Your task to perform on an android device: delete browsing data in the chrome app Image 0: 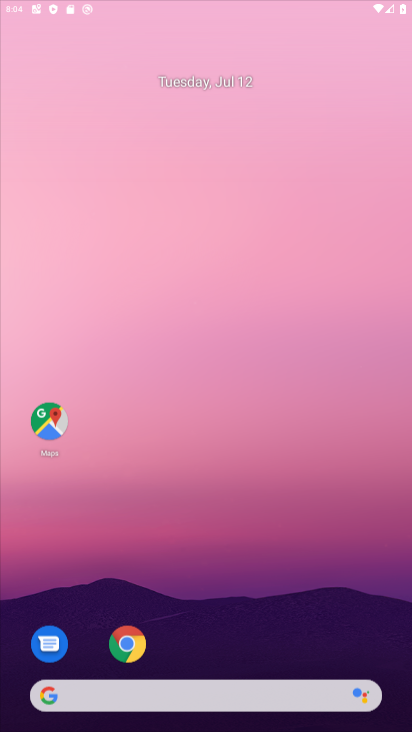
Step 0: click (257, 134)
Your task to perform on an android device: delete browsing data in the chrome app Image 1: 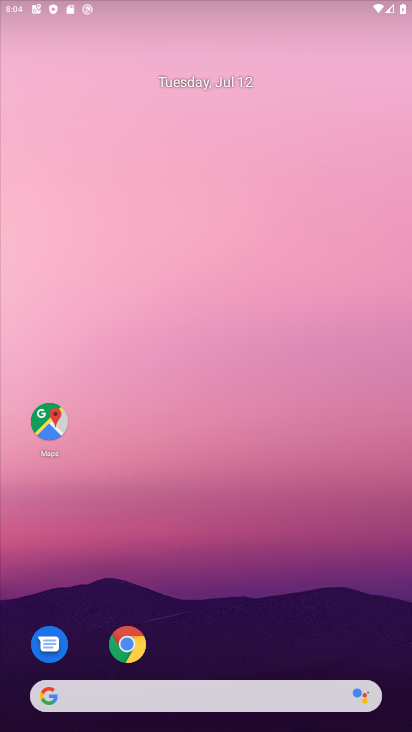
Step 1: drag from (219, 590) to (265, 263)
Your task to perform on an android device: delete browsing data in the chrome app Image 2: 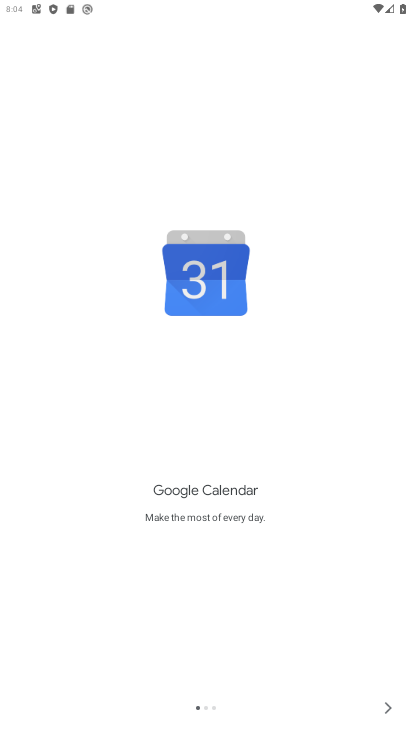
Step 2: press home button
Your task to perform on an android device: delete browsing data in the chrome app Image 3: 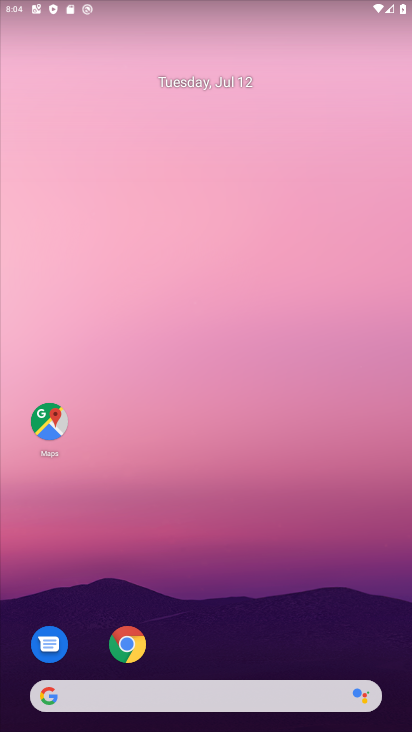
Step 3: drag from (222, 554) to (327, 69)
Your task to perform on an android device: delete browsing data in the chrome app Image 4: 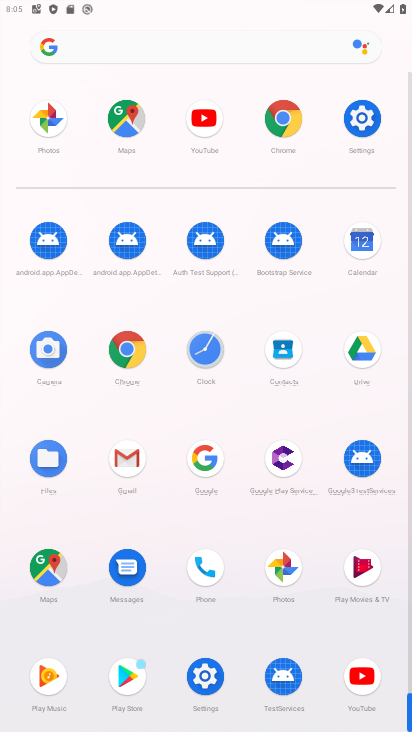
Step 4: click (133, 353)
Your task to perform on an android device: delete browsing data in the chrome app Image 5: 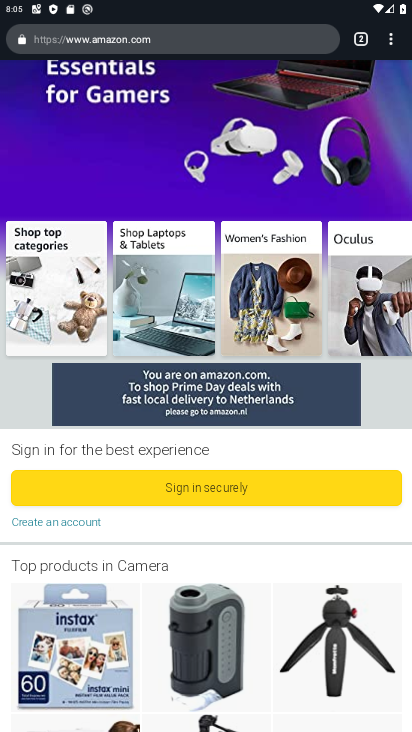
Step 5: drag from (116, 168) to (241, 631)
Your task to perform on an android device: delete browsing data in the chrome app Image 6: 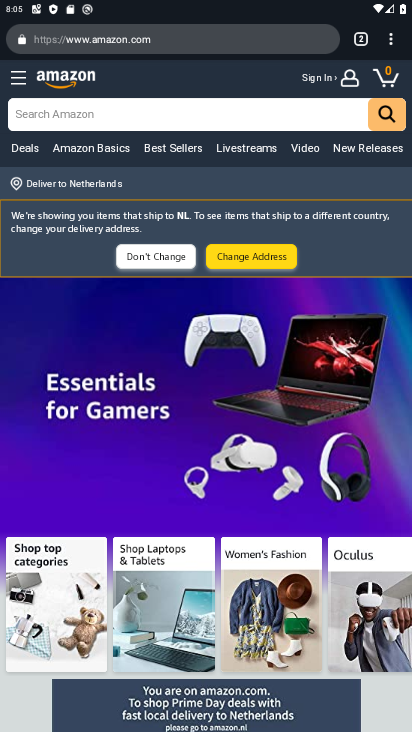
Step 6: drag from (214, 161) to (348, 501)
Your task to perform on an android device: delete browsing data in the chrome app Image 7: 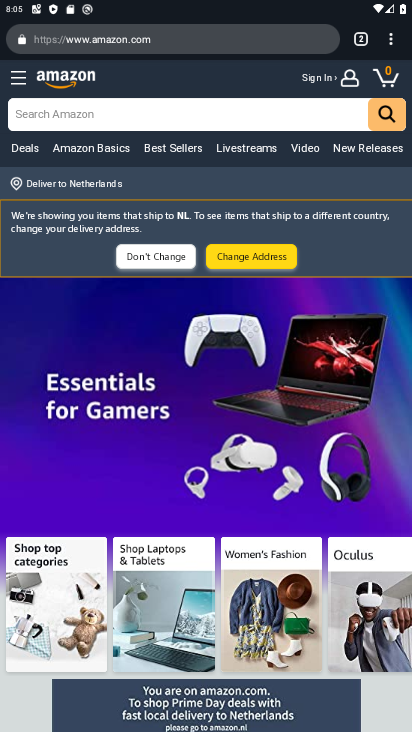
Step 7: drag from (203, 556) to (240, 0)
Your task to perform on an android device: delete browsing data in the chrome app Image 8: 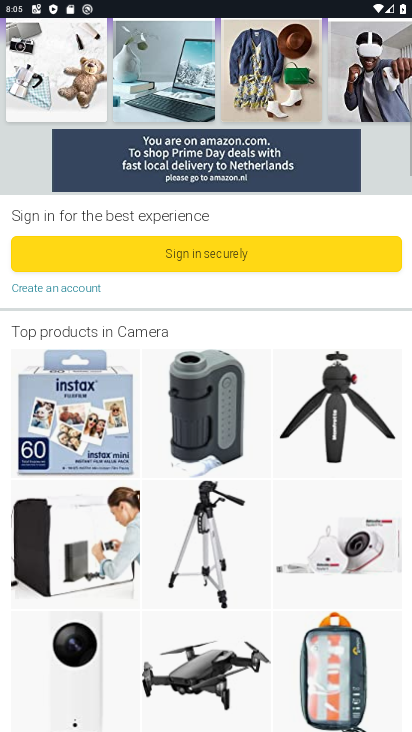
Step 8: drag from (118, 168) to (218, 718)
Your task to perform on an android device: delete browsing data in the chrome app Image 9: 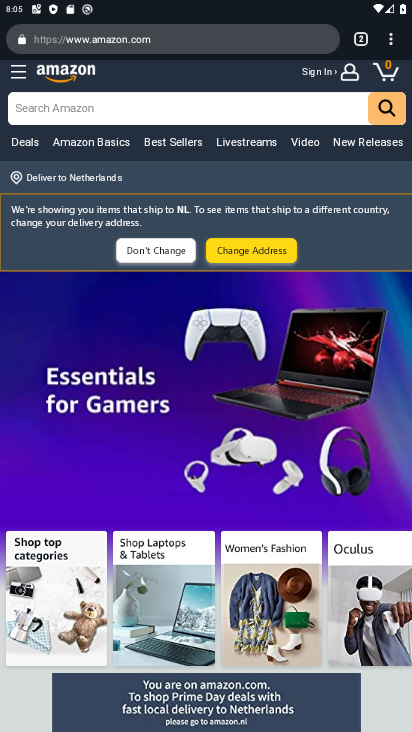
Step 9: drag from (203, 190) to (234, 535)
Your task to perform on an android device: delete browsing data in the chrome app Image 10: 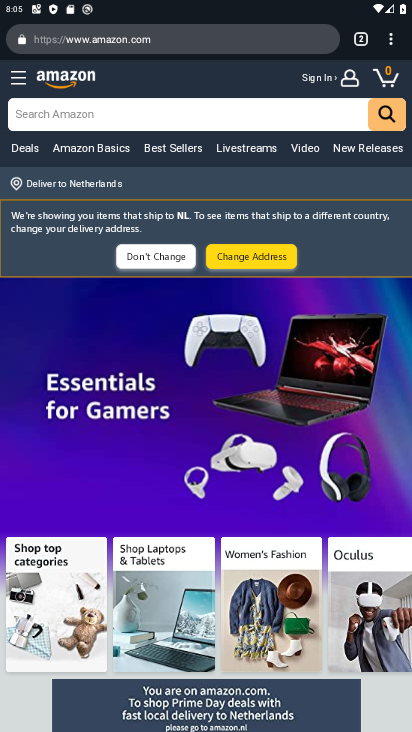
Step 10: click (396, 40)
Your task to perform on an android device: delete browsing data in the chrome app Image 11: 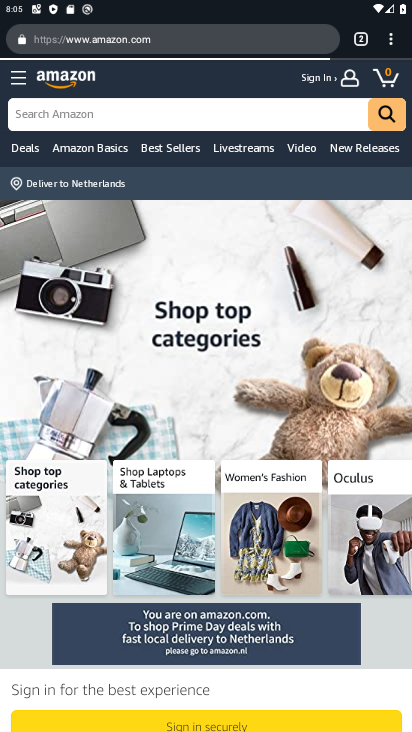
Step 11: click (389, 40)
Your task to perform on an android device: delete browsing data in the chrome app Image 12: 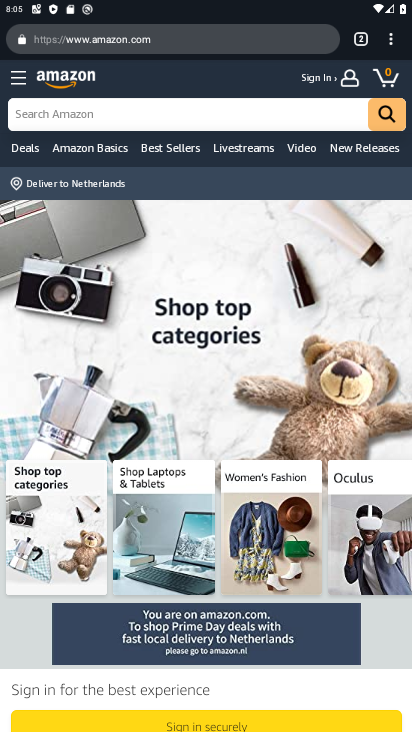
Step 12: click (392, 41)
Your task to perform on an android device: delete browsing data in the chrome app Image 13: 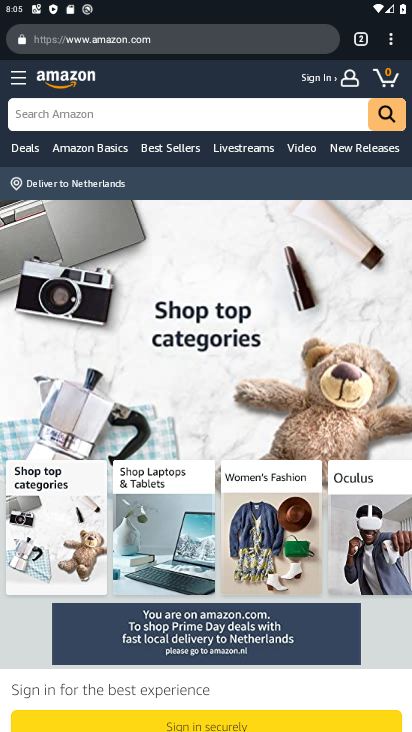
Step 13: drag from (393, 40) to (260, 268)
Your task to perform on an android device: delete browsing data in the chrome app Image 14: 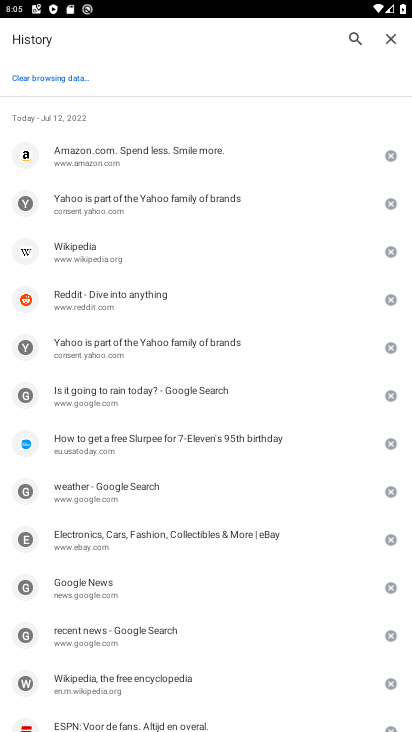
Step 14: click (58, 75)
Your task to perform on an android device: delete browsing data in the chrome app Image 15: 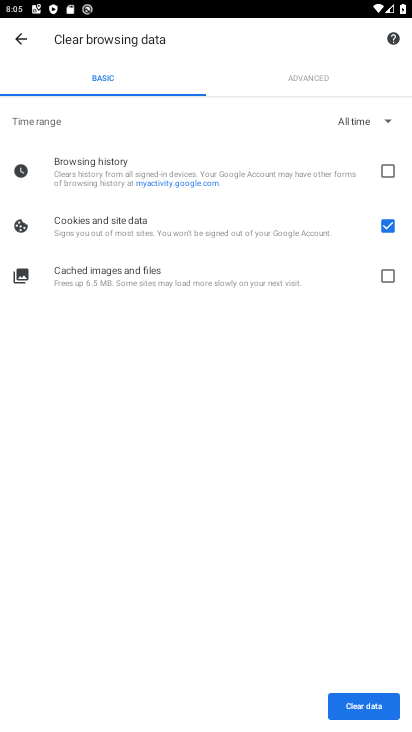
Step 15: click (349, 121)
Your task to perform on an android device: delete browsing data in the chrome app Image 16: 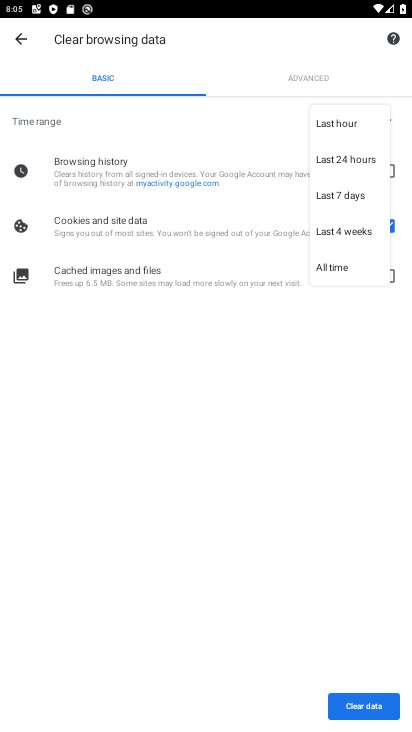
Step 16: click (172, 127)
Your task to perform on an android device: delete browsing data in the chrome app Image 17: 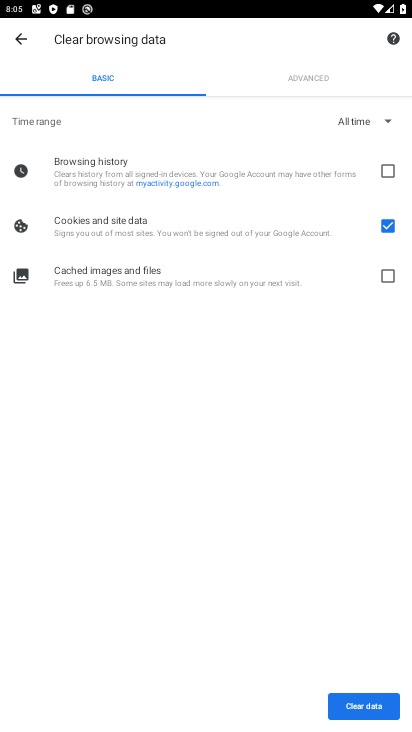
Step 17: click (356, 706)
Your task to perform on an android device: delete browsing data in the chrome app Image 18: 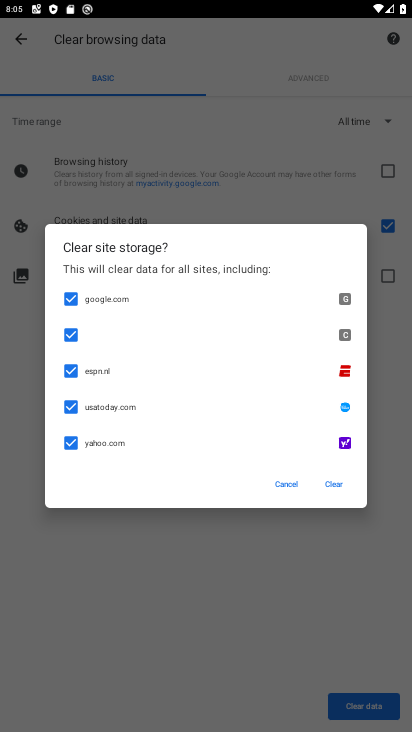
Step 18: click (326, 480)
Your task to perform on an android device: delete browsing data in the chrome app Image 19: 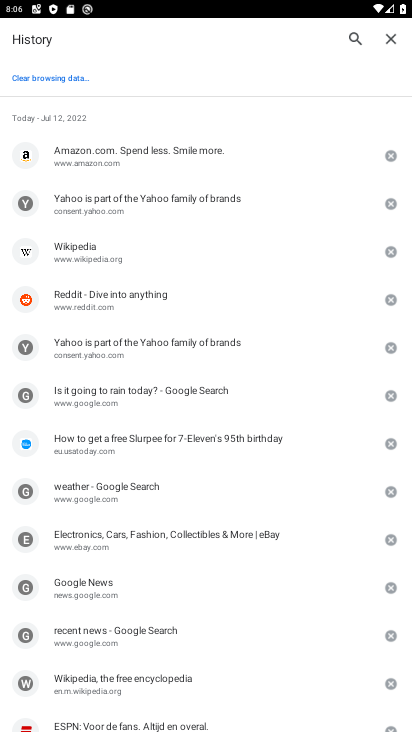
Step 19: click (35, 75)
Your task to perform on an android device: delete browsing data in the chrome app Image 20: 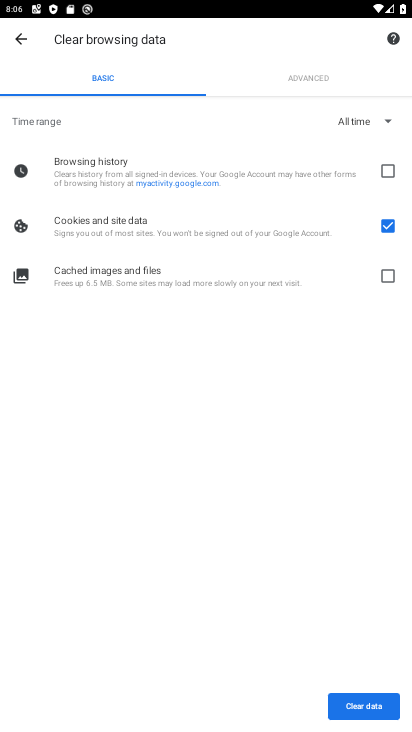
Step 20: click (387, 174)
Your task to perform on an android device: delete browsing data in the chrome app Image 21: 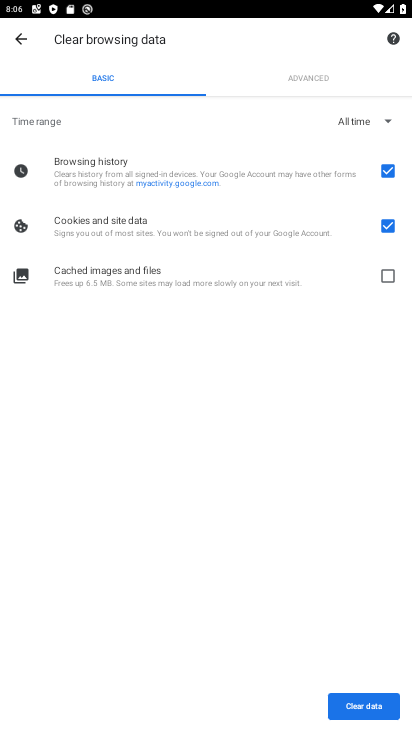
Step 21: click (385, 269)
Your task to perform on an android device: delete browsing data in the chrome app Image 22: 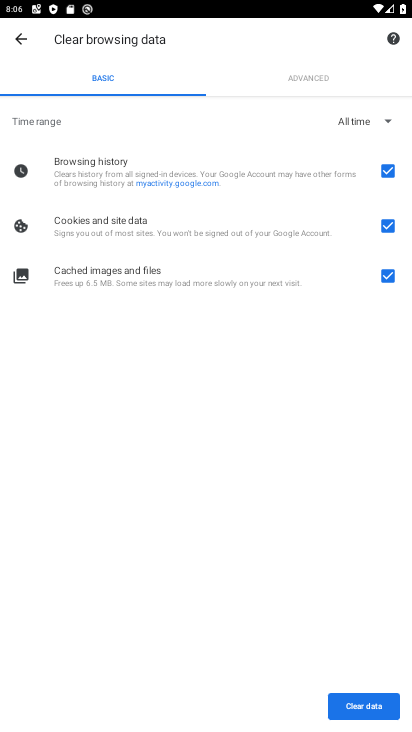
Step 22: click (353, 705)
Your task to perform on an android device: delete browsing data in the chrome app Image 23: 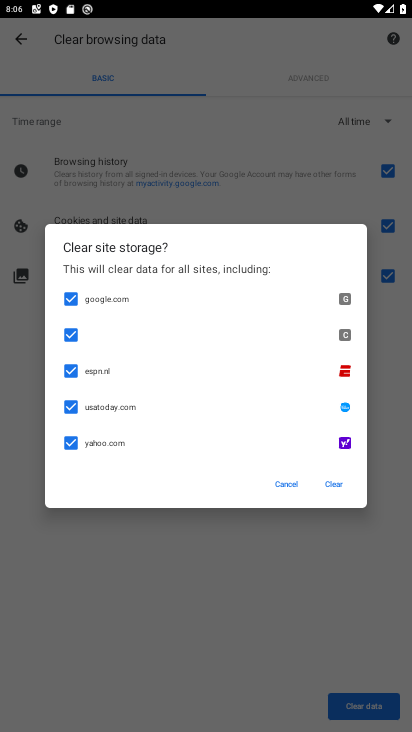
Step 23: click (331, 488)
Your task to perform on an android device: delete browsing data in the chrome app Image 24: 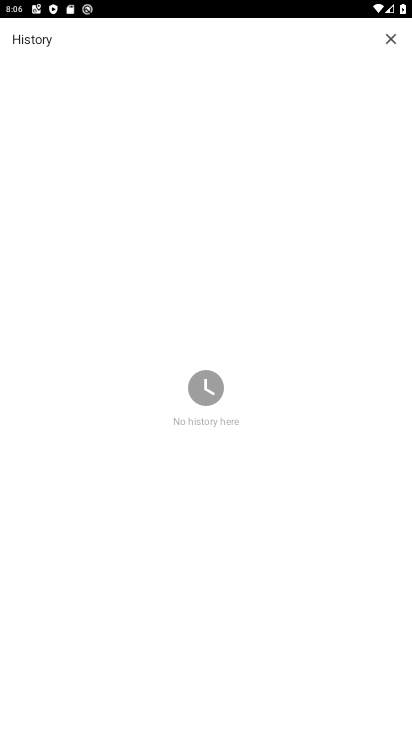
Step 24: click (306, 283)
Your task to perform on an android device: delete browsing data in the chrome app Image 25: 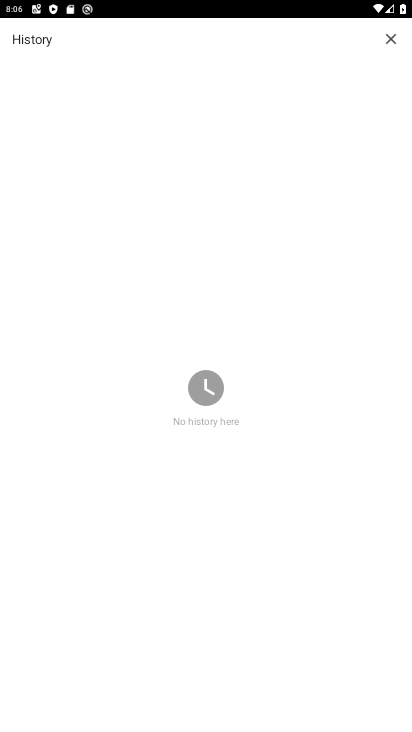
Step 25: drag from (210, 533) to (243, 219)
Your task to perform on an android device: delete browsing data in the chrome app Image 26: 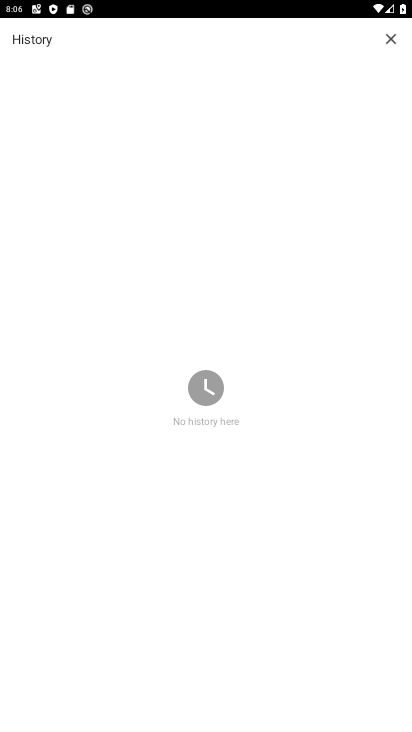
Step 26: drag from (197, 436) to (237, 236)
Your task to perform on an android device: delete browsing data in the chrome app Image 27: 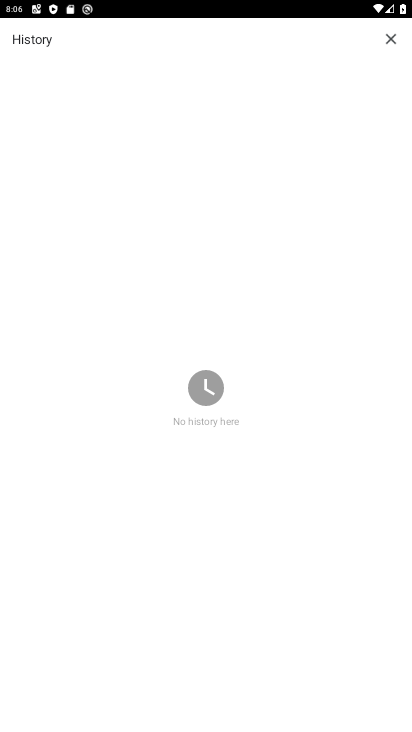
Step 27: click (237, 161)
Your task to perform on an android device: delete browsing data in the chrome app Image 28: 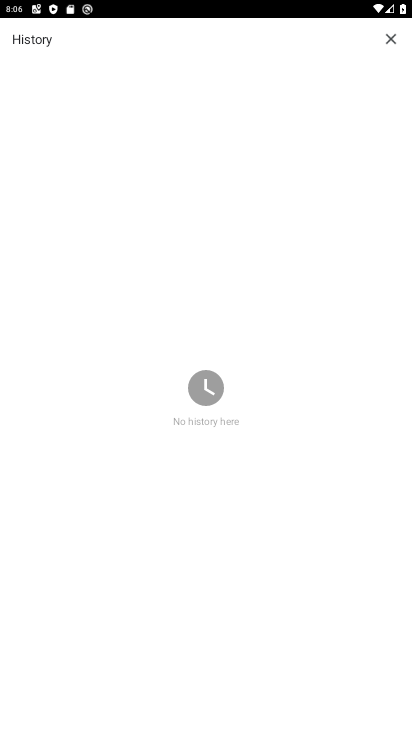
Step 28: task complete